Your task to perform on an android device: turn on wifi Image 0: 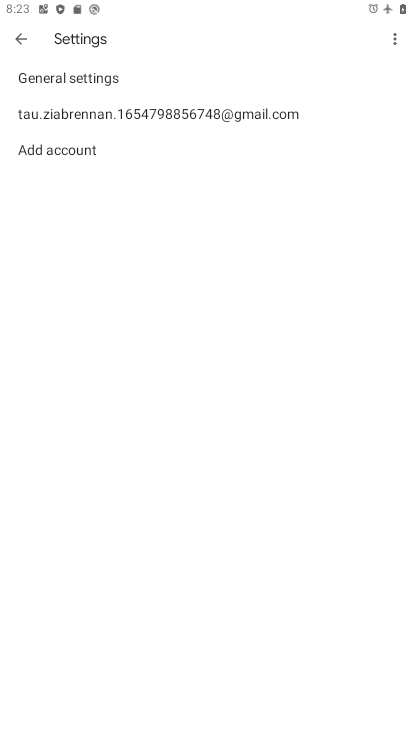
Step 0: press home button
Your task to perform on an android device: turn on wifi Image 1: 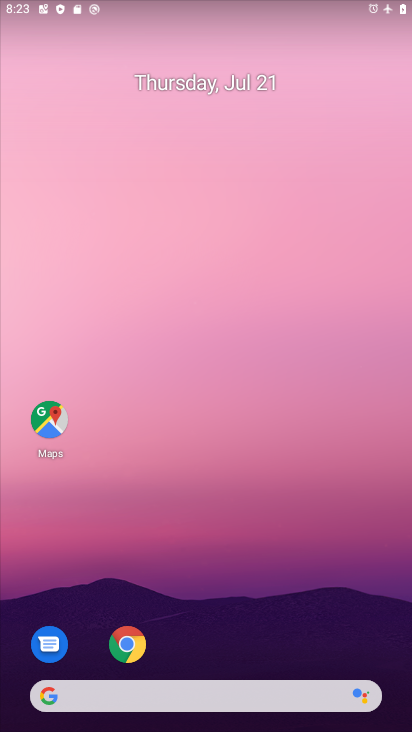
Step 1: drag from (228, 632) to (201, 246)
Your task to perform on an android device: turn on wifi Image 2: 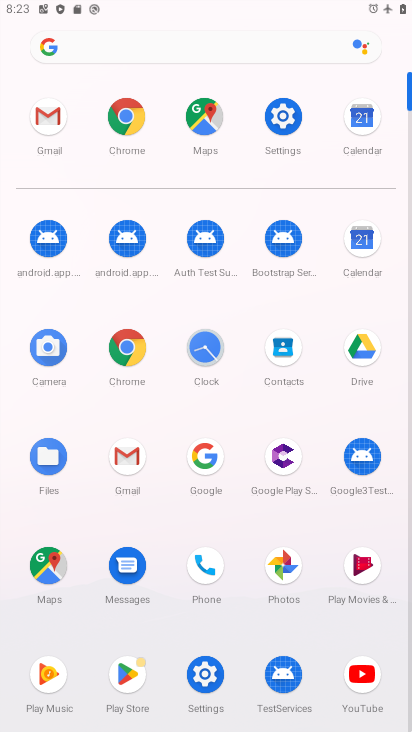
Step 2: click (293, 110)
Your task to perform on an android device: turn on wifi Image 3: 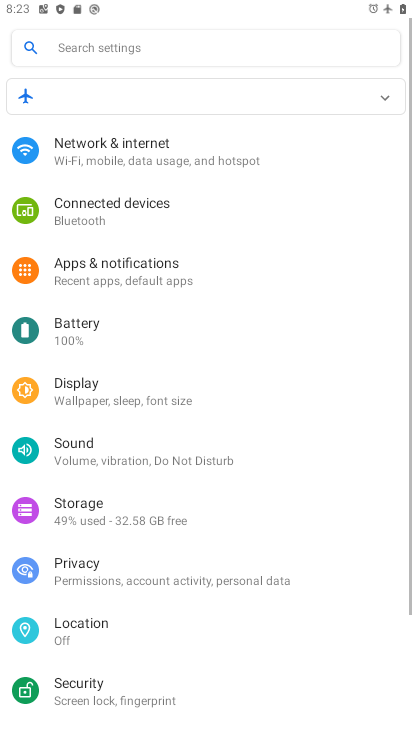
Step 3: click (150, 159)
Your task to perform on an android device: turn on wifi Image 4: 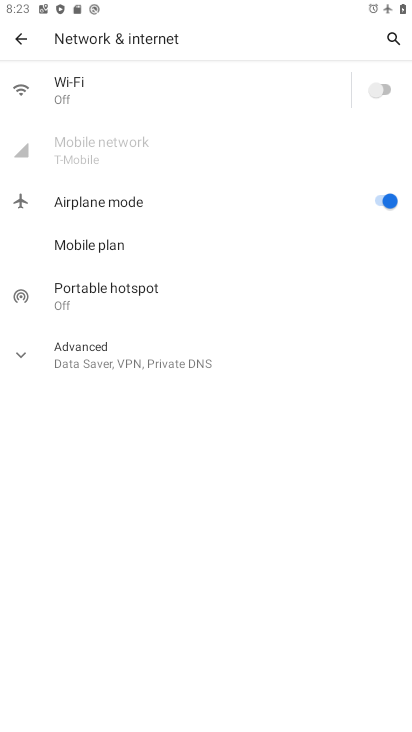
Step 4: click (384, 83)
Your task to perform on an android device: turn on wifi Image 5: 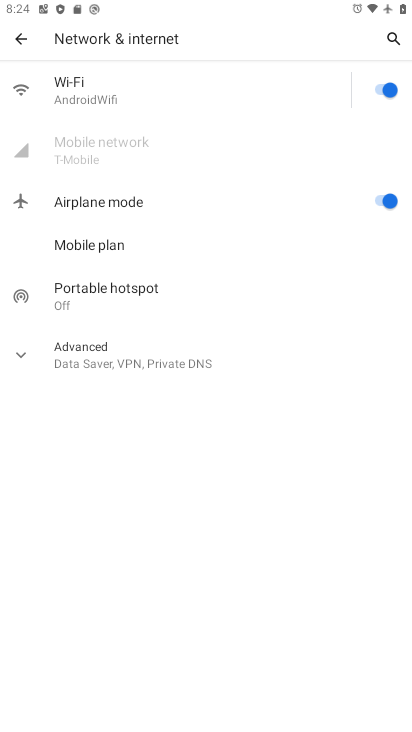
Step 5: task complete